Your task to perform on an android device: move a message to another label in the gmail app Image 0: 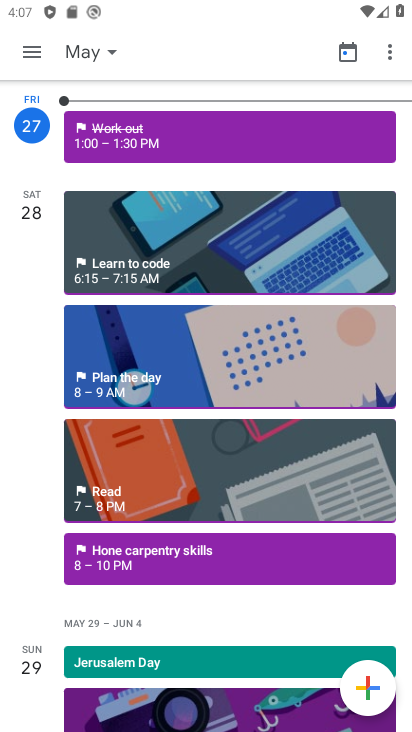
Step 0: press home button
Your task to perform on an android device: move a message to another label in the gmail app Image 1: 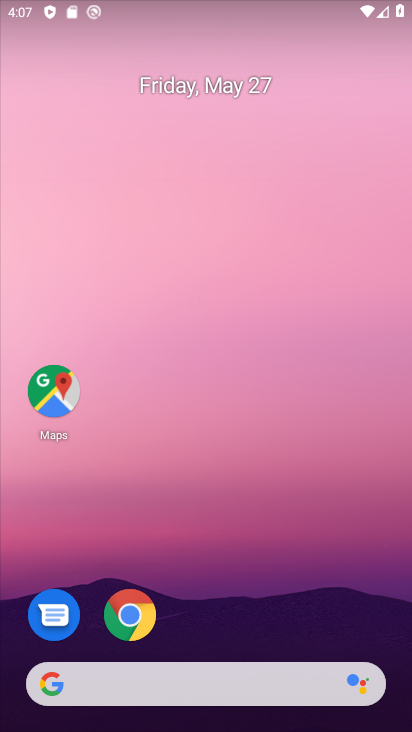
Step 1: drag from (264, 565) to (37, 8)
Your task to perform on an android device: move a message to another label in the gmail app Image 2: 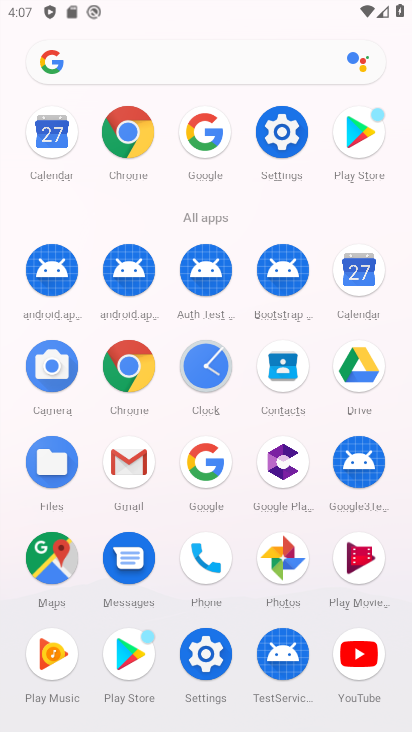
Step 2: click (134, 454)
Your task to perform on an android device: move a message to another label in the gmail app Image 3: 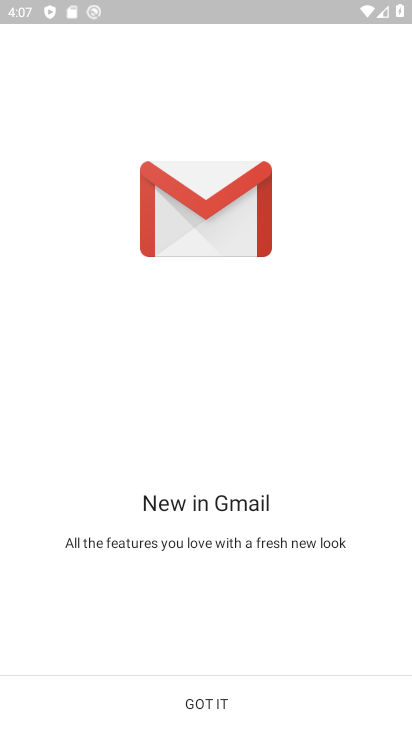
Step 3: click (226, 714)
Your task to perform on an android device: move a message to another label in the gmail app Image 4: 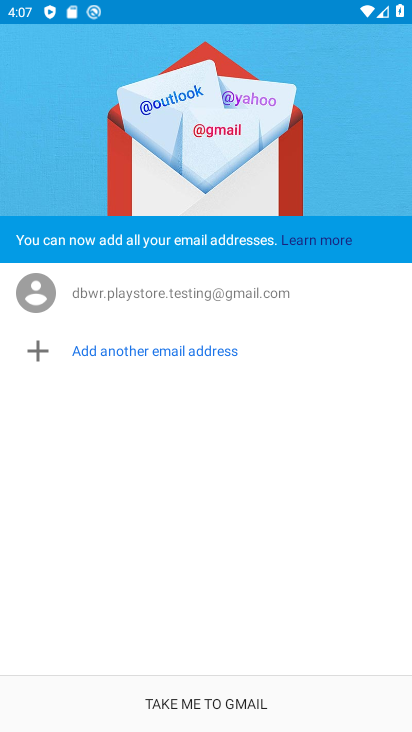
Step 4: click (239, 691)
Your task to perform on an android device: move a message to another label in the gmail app Image 5: 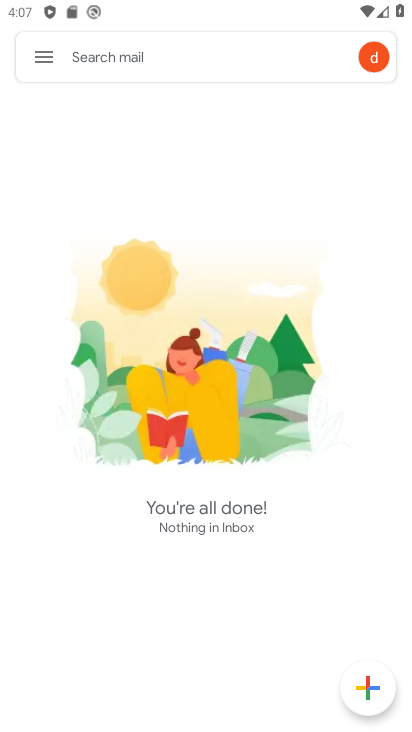
Step 5: click (37, 59)
Your task to perform on an android device: move a message to another label in the gmail app Image 6: 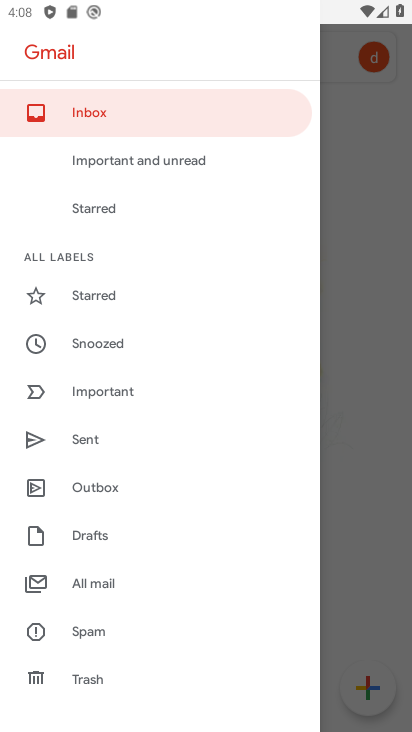
Step 6: click (125, 574)
Your task to perform on an android device: move a message to another label in the gmail app Image 7: 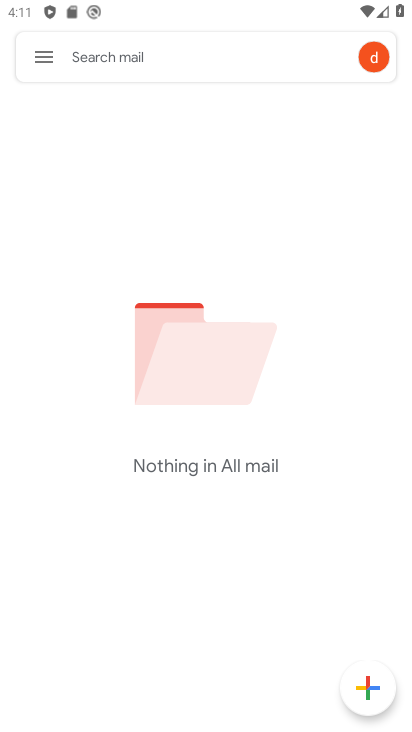
Step 7: task complete